Your task to perform on an android device: Open Android settings Image 0: 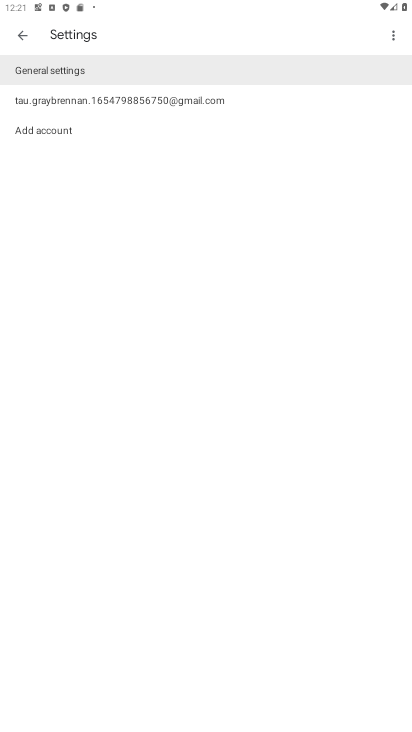
Step 0: press home button
Your task to perform on an android device: Open Android settings Image 1: 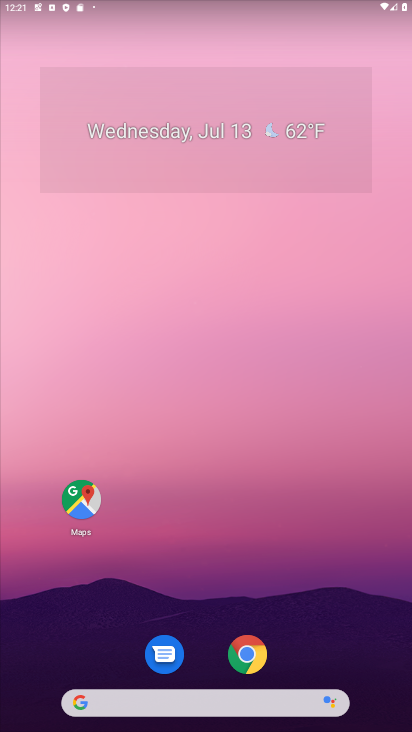
Step 1: drag from (192, 681) to (248, 171)
Your task to perform on an android device: Open Android settings Image 2: 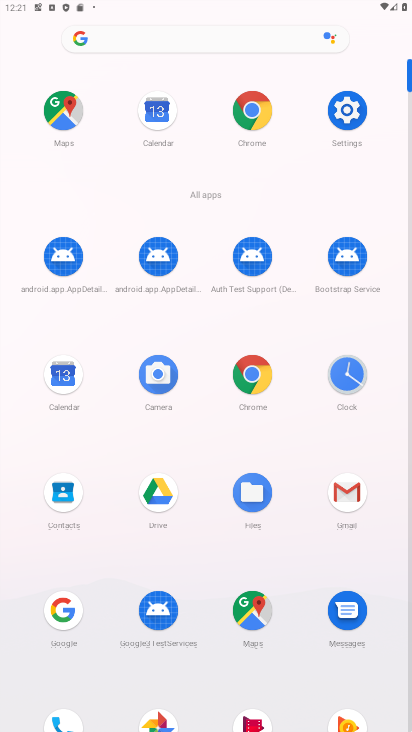
Step 2: click (355, 110)
Your task to perform on an android device: Open Android settings Image 3: 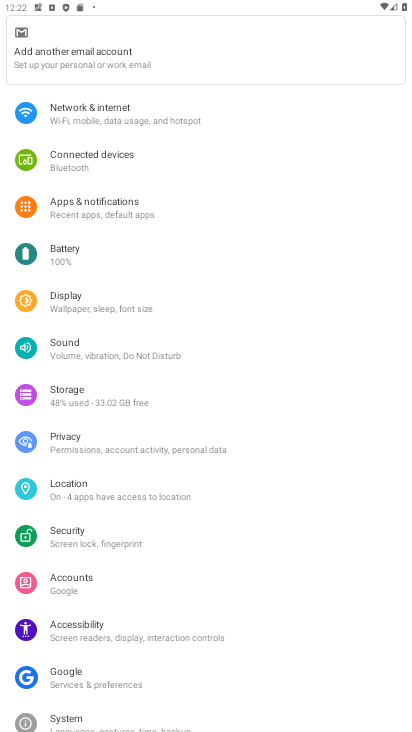
Step 3: drag from (196, 698) to (303, 123)
Your task to perform on an android device: Open Android settings Image 4: 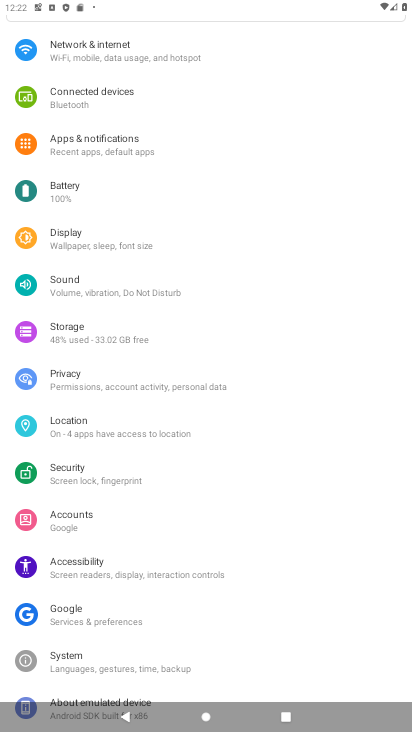
Step 4: click (122, 698)
Your task to perform on an android device: Open Android settings Image 5: 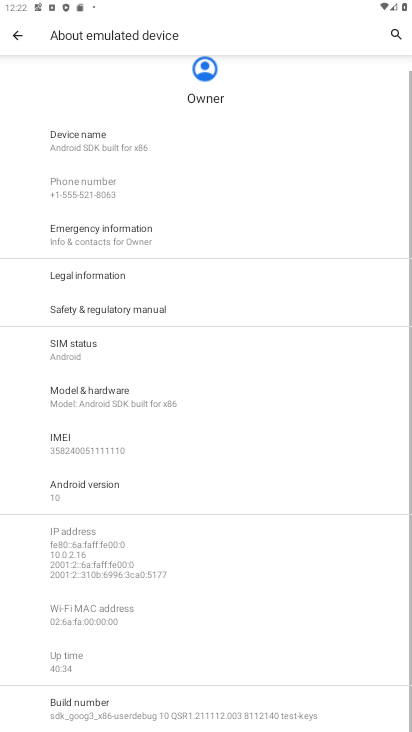
Step 5: click (133, 499)
Your task to perform on an android device: Open Android settings Image 6: 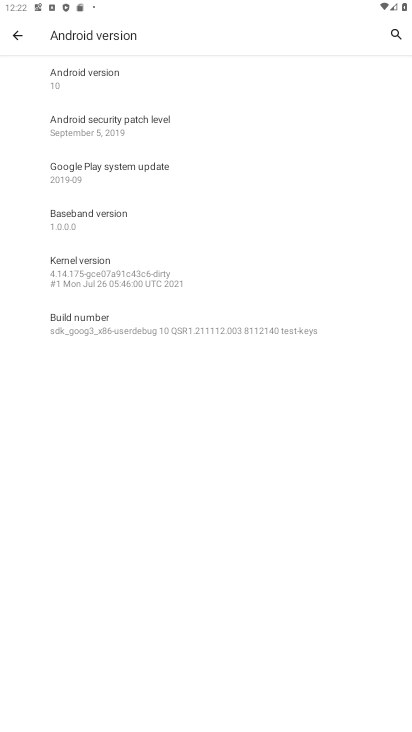
Step 6: task complete